Your task to perform on an android device: change the clock display to digital Image 0: 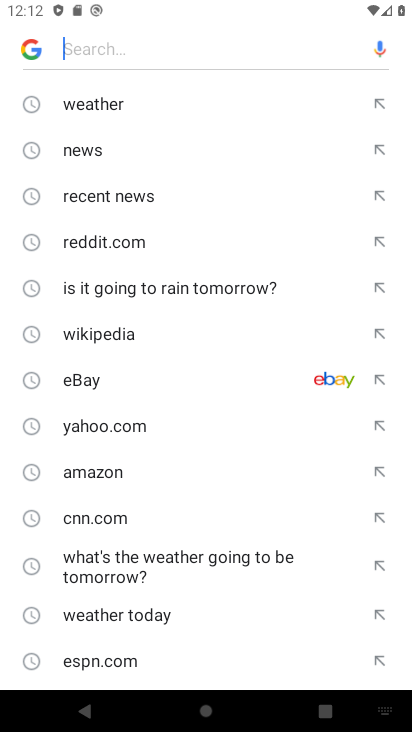
Step 0: press home button
Your task to perform on an android device: change the clock display to digital Image 1: 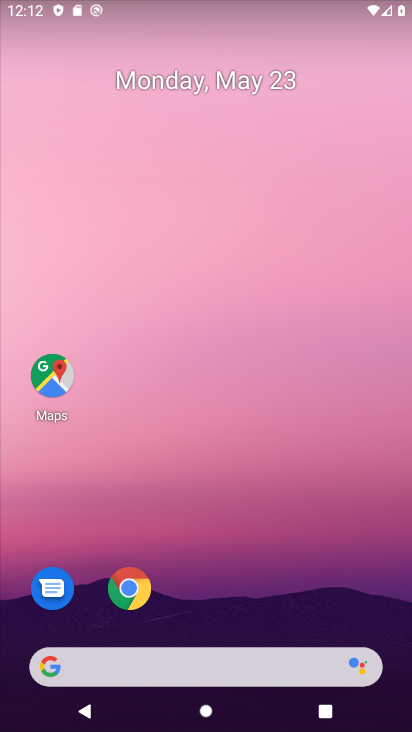
Step 1: drag from (225, 715) to (201, 24)
Your task to perform on an android device: change the clock display to digital Image 2: 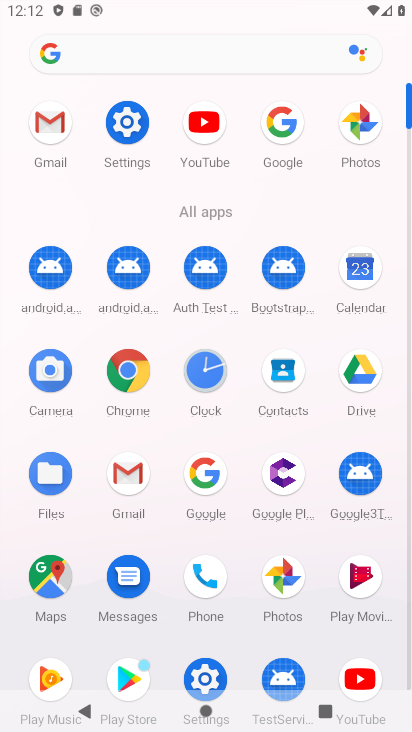
Step 2: click (206, 377)
Your task to perform on an android device: change the clock display to digital Image 3: 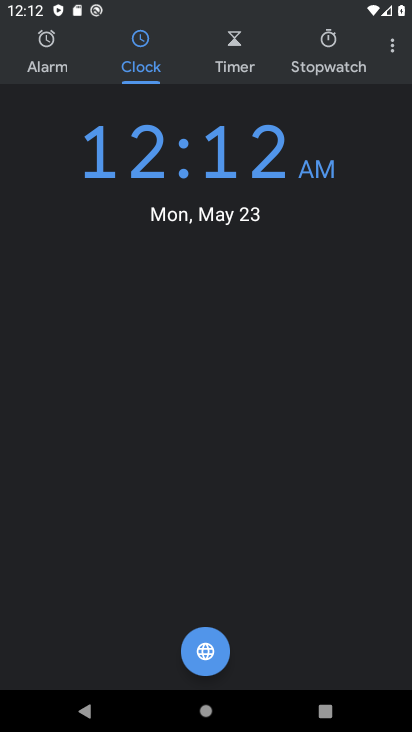
Step 3: click (395, 48)
Your task to perform on an android device: change the clock display to digital Image 4: 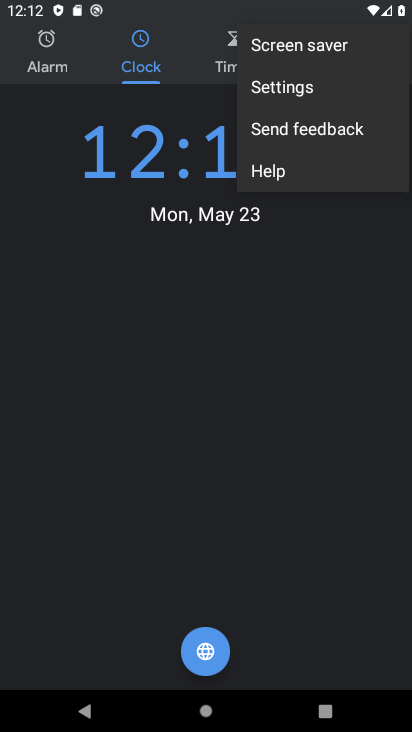
Step 4: click (279, 94)
Your task to perform on an android device: change the clock display to digital Image 5: 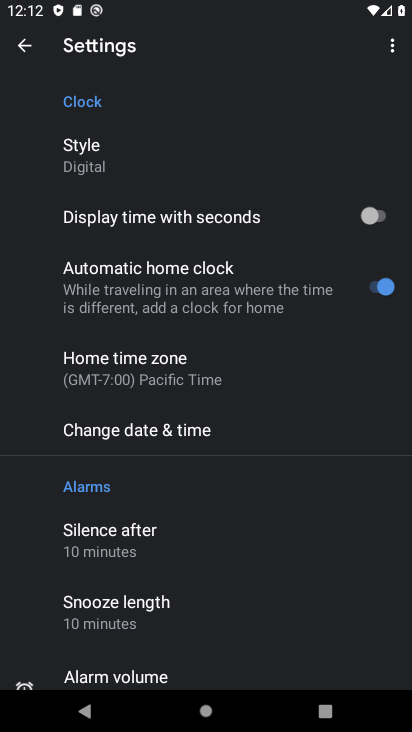
Step 5: task complete